Your task to perform on an android device: toggle notification dots Image 0: 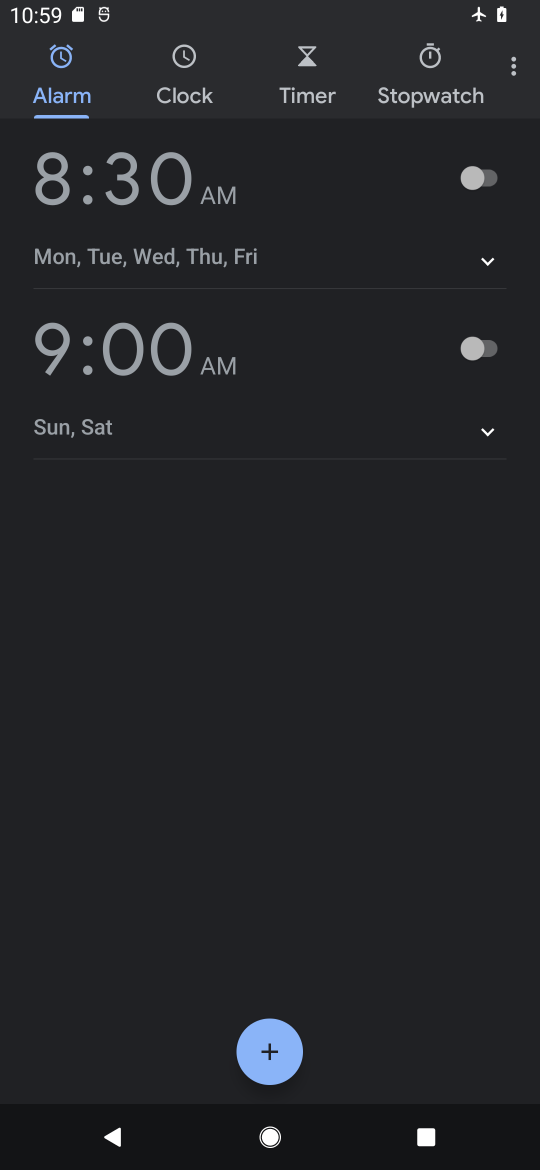
Step 0: press home button
Your task to perform on an android device: toggle notification dots Image 1: 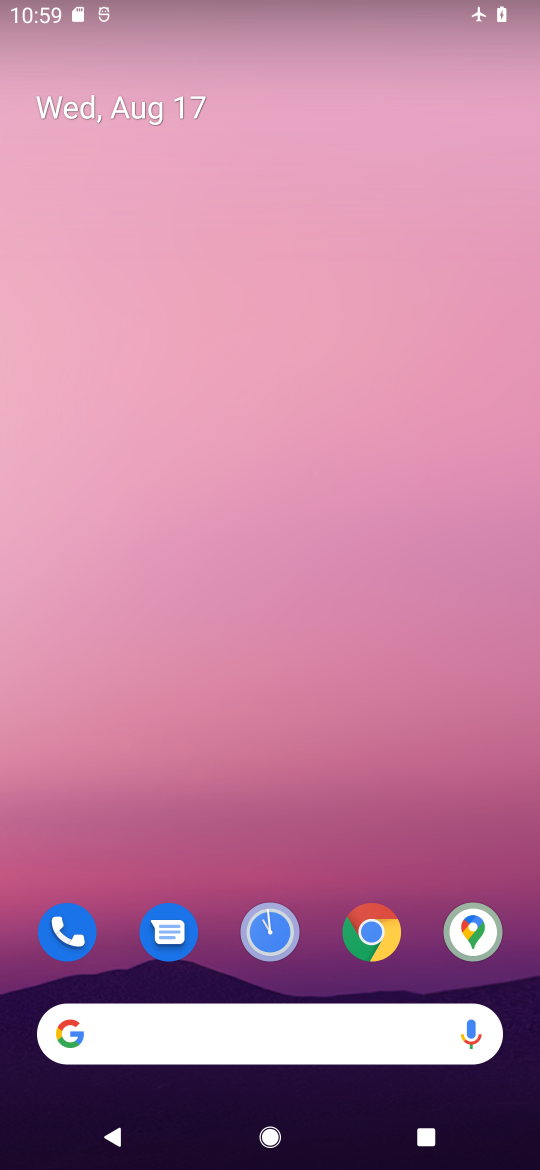
Step 1: drag from (324, 736) to (311, 105)
Your task to perform on an android device: toggle notification dots Image 2: 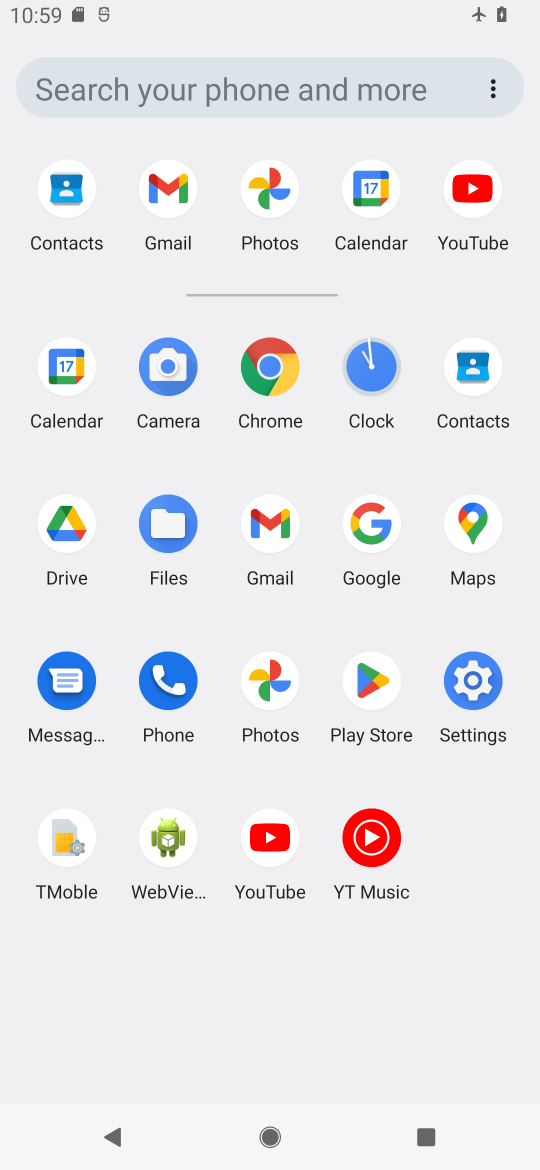
Step 2: click (467, 675)
Your task to perform on an android device: toggle notification dots Image 3: 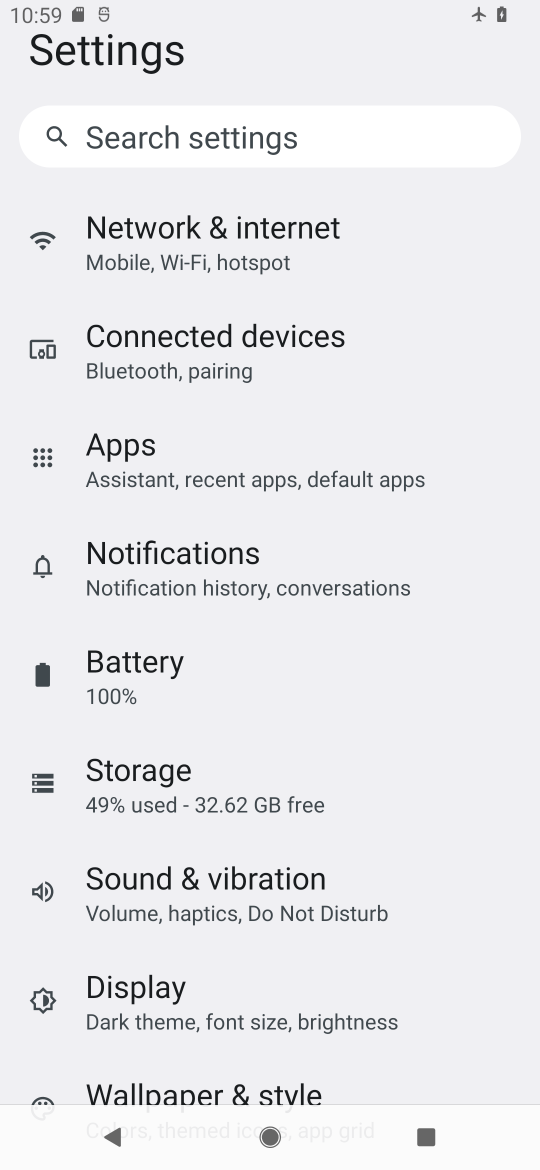
Step 3: click (177, 557)
Your task to perform on an android device: toggle notification dots Image 4: 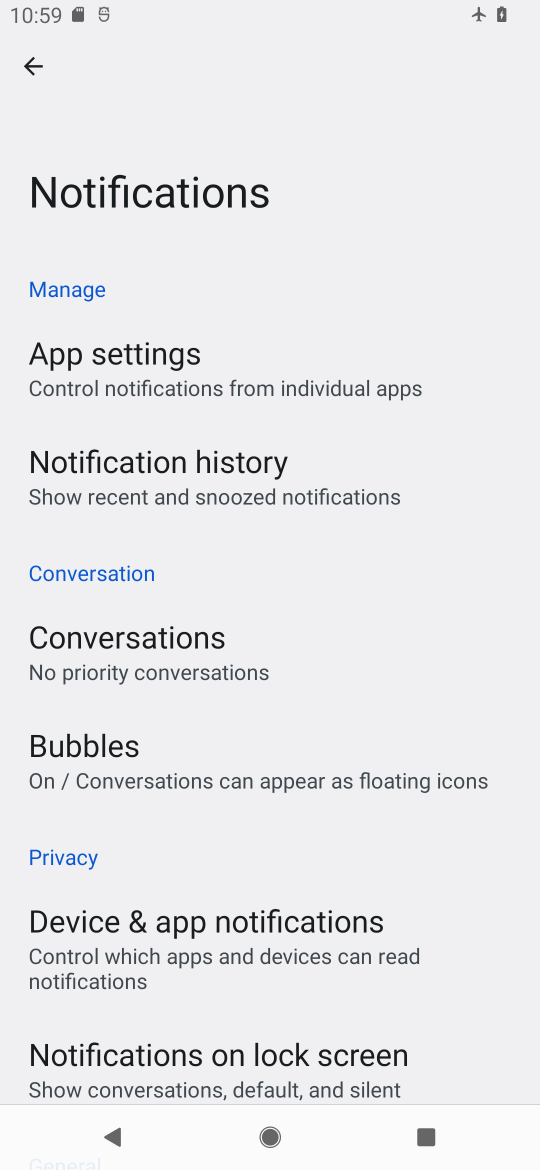
Step 4: task complete